Your task to perform on an android device: Go to Amazon Image 0: 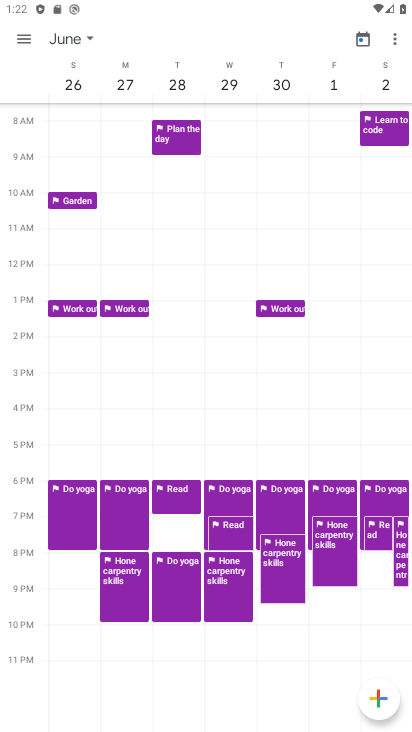
Step 0: press home button
Your task to perform on an android device: Go to Amazon Image 1: 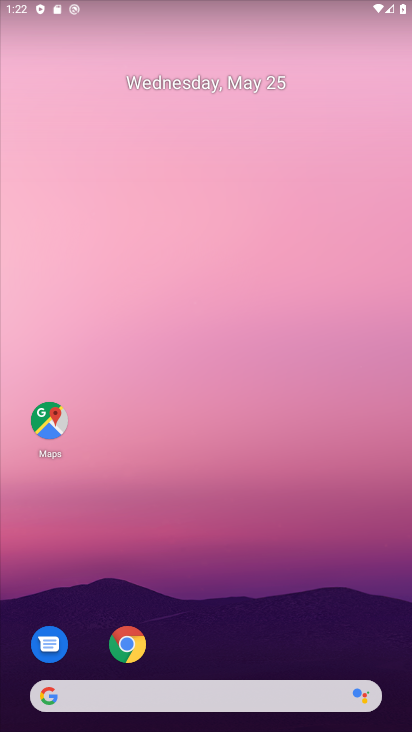
Step 1: click (136, 657)
Your task to perform on an android device: Go to Amazon Image 2: 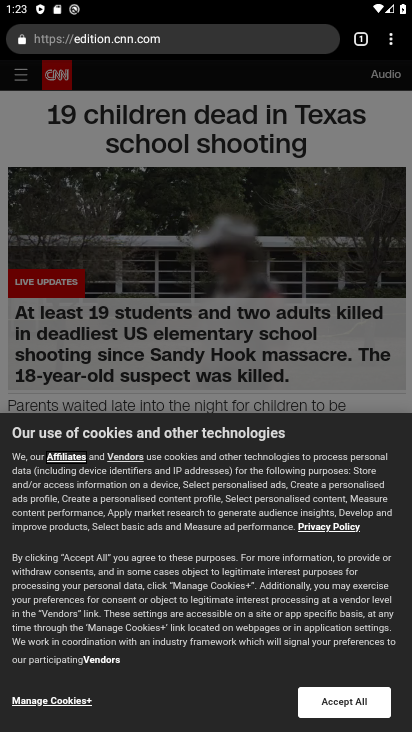
Step 2: press back button
Your task to perform on an android device: Go to Amazon Image 3: 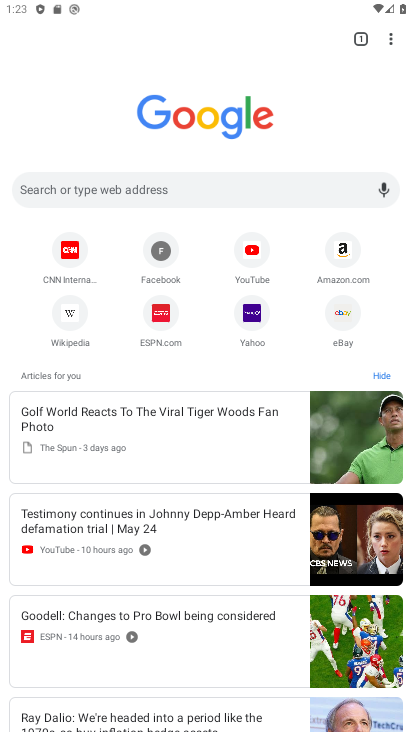
Step 3: click (343, 262)
Your task to perform on an android device: Go to Amazon Image 4: 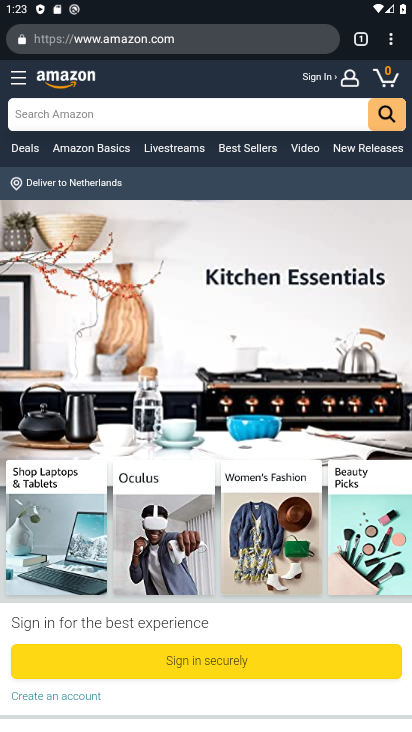
Step 4: task complete